Your task to perform on an android device: Go to privacy settings Image 0: 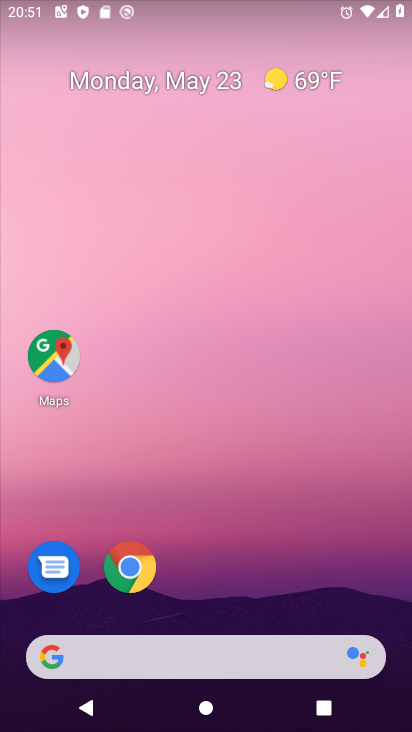
Step 0: drag from (216, 522) to (244, 3)
Your task to perform on an android device: Go to privacy settings Image 1: 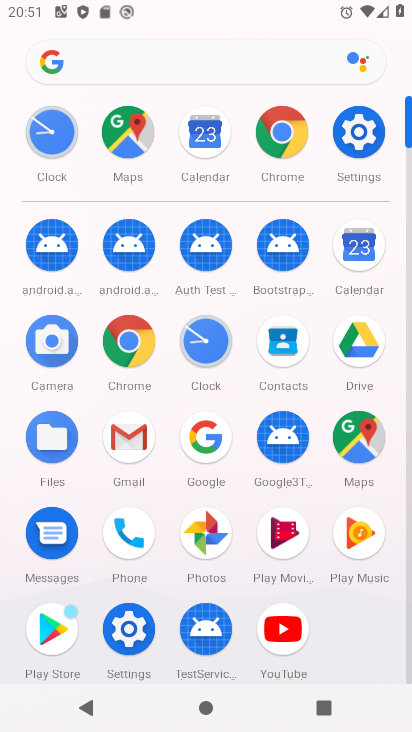
Step 1: click (356, 144)
Your task to perform on an android device: Go to privacy settings Image 2: 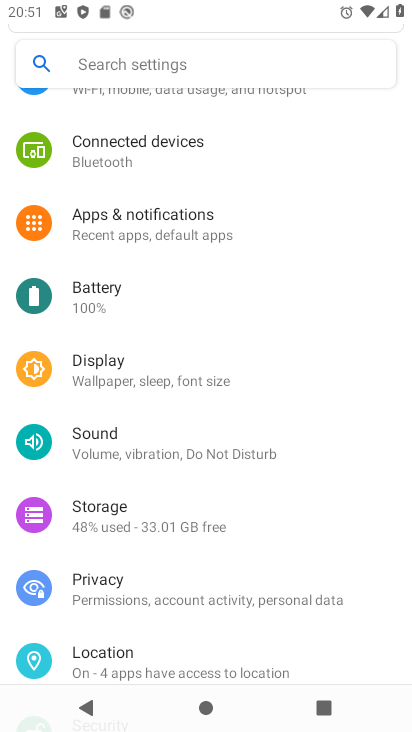
Step 2: click (141, 608)
Your task to perform on an android device: Go to privacy settings Image 3: 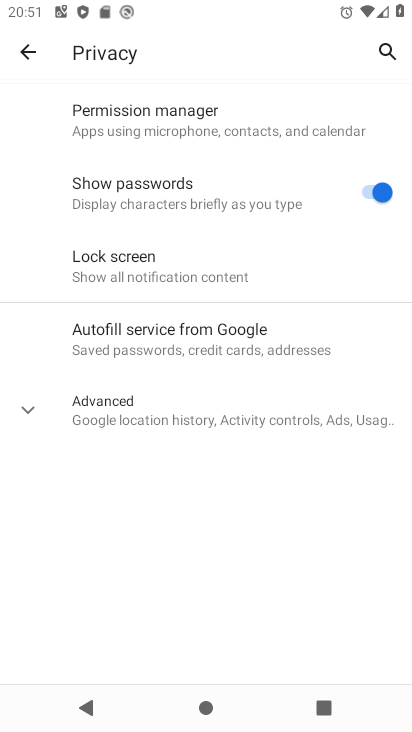
Step 3: task complete